Your task to perform on an android device: turn off airplane mode Image 0: 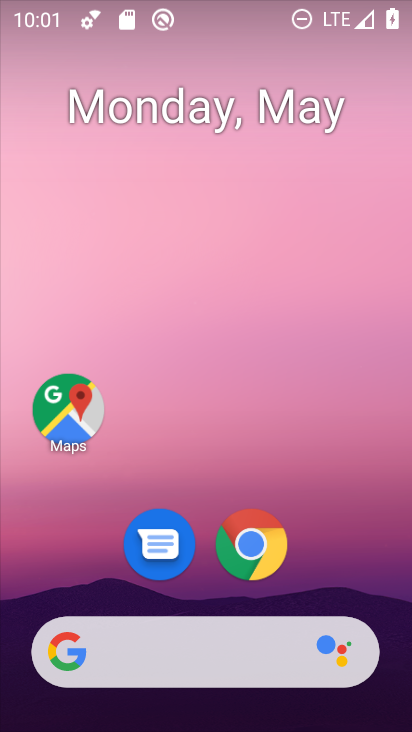
Step 0: drag from (385, 557) to (330, 94)
Your task to perform on an android device: turn off airplane mode Image 1: 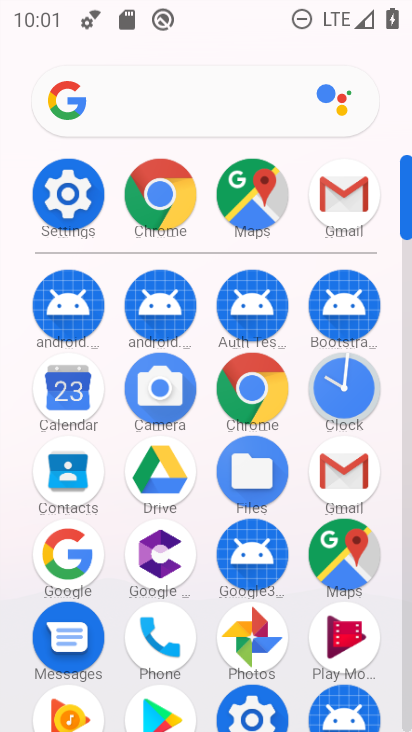
Step 1: click (37, 195)
Your task to perform on an android device: turn off airplane mode Image 2: 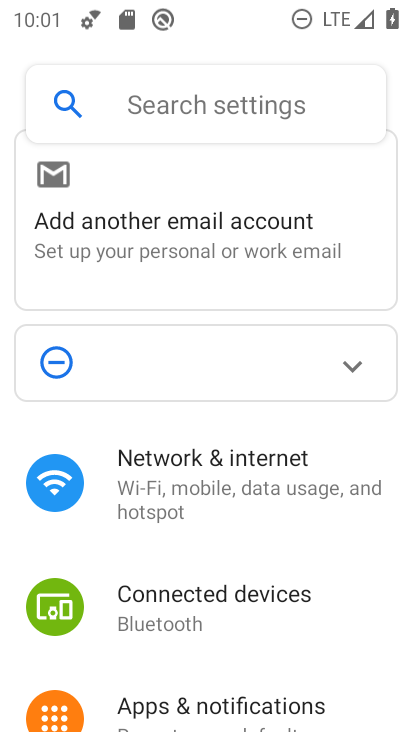
Step 2: click (191, 497)
Your task to perform on an android device: turn off airplane mode Image 3: 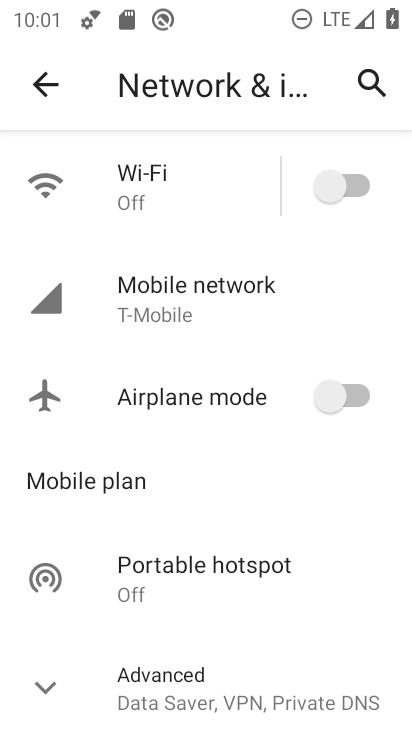
Step 3: task complete